Your task to perform on an android device: Add energizer triple a to the cart on newegg Image 0: 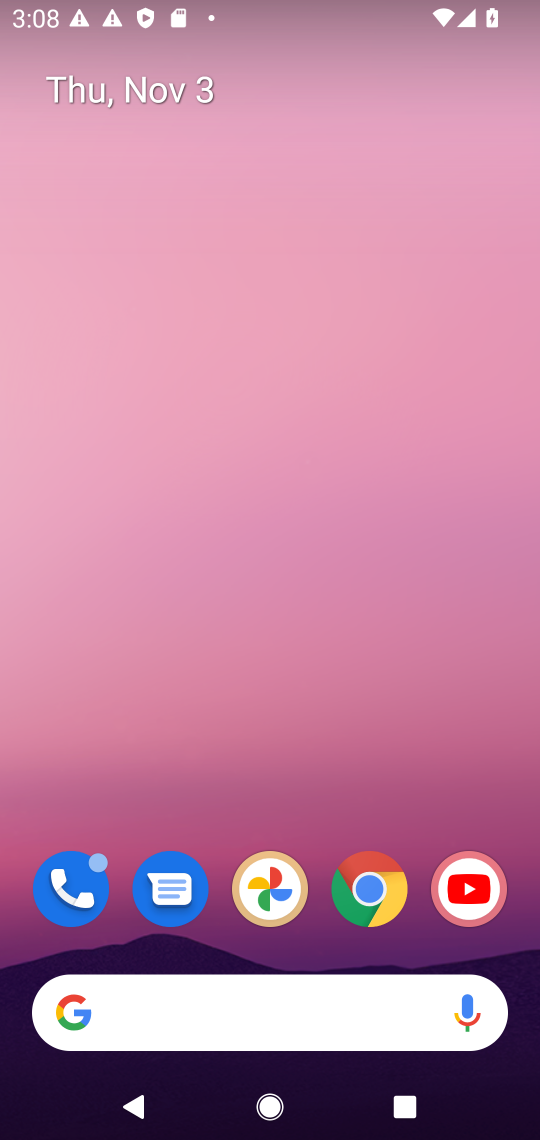
Step 0: click (374, 897)
Your task to perform on an android device: Add energizer triple a to the cart on newegg Image 1: 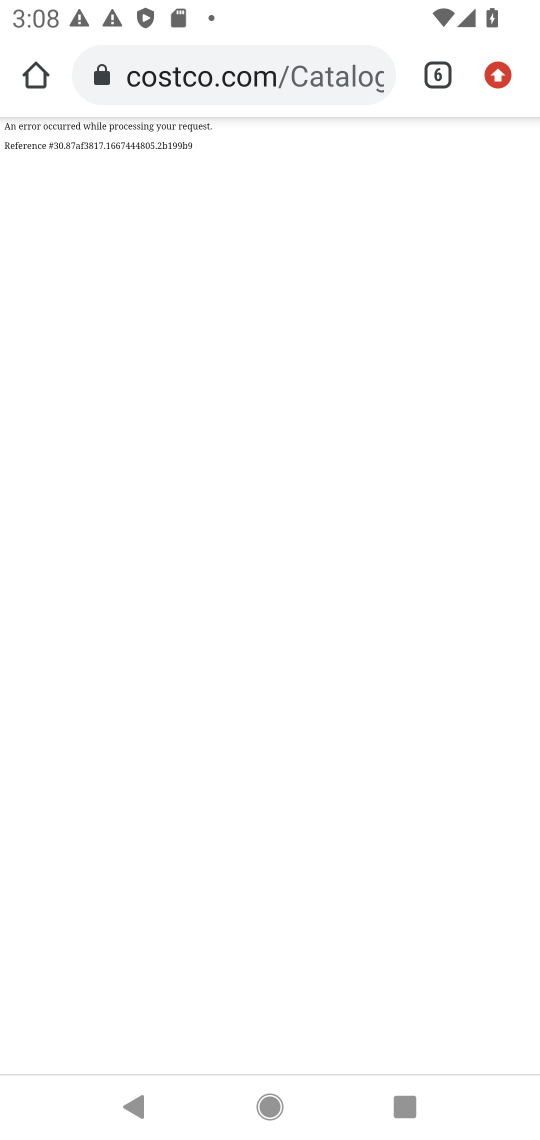
Step 1: click (444, 62)
Your task to perform on an android device: Add energizer triple a to the cart on newegg Image 2: 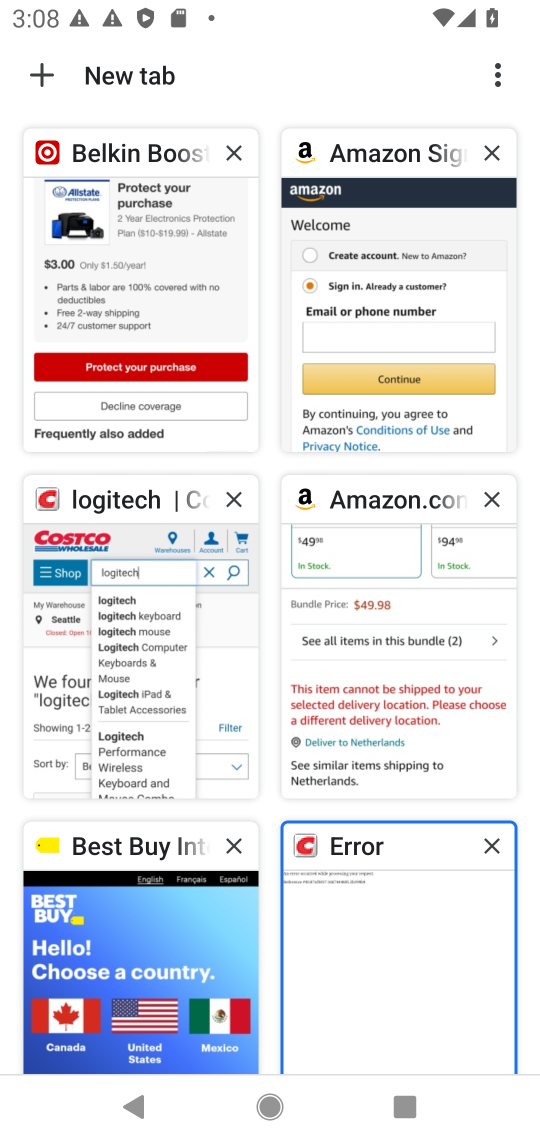
Step 2: click (486, 858)
Your task to perform on an android device: Add energizer triple a to the cart on newegg Image 3: 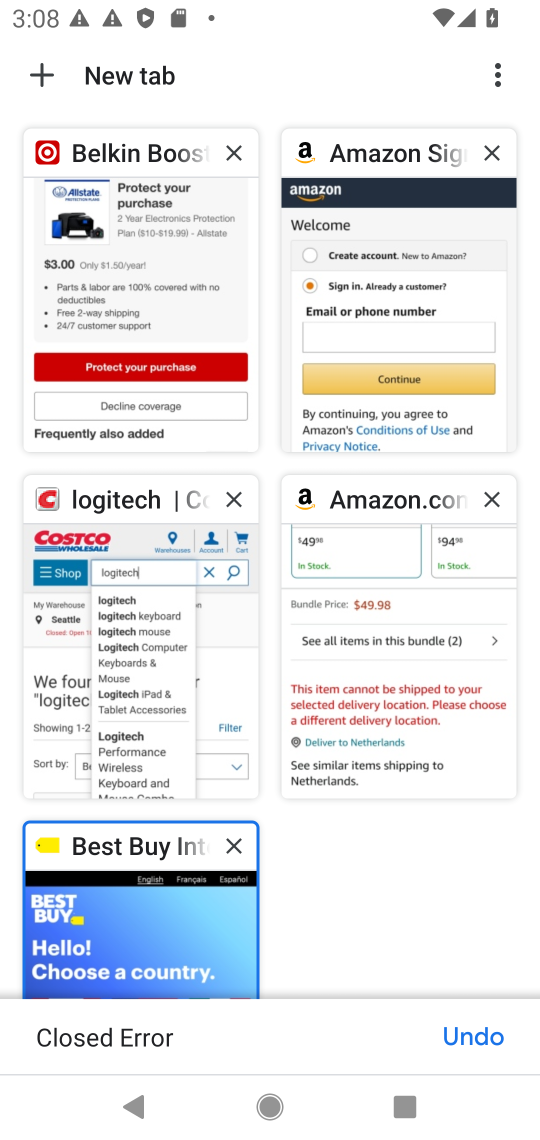
Step 3: click (490, 847)
Your task to perform on an android device: Add energizer triple a to the cart on newegg Image 4: 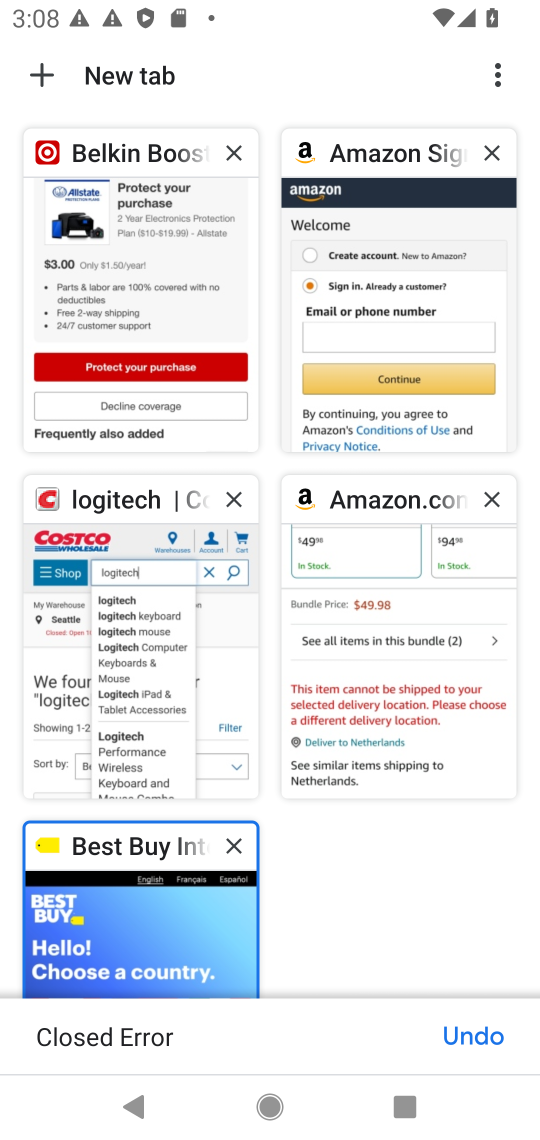
Step 4: click (231, 844)
Your task to perform on an android device: Add energizer triple a to the cart on newegg Image 5: 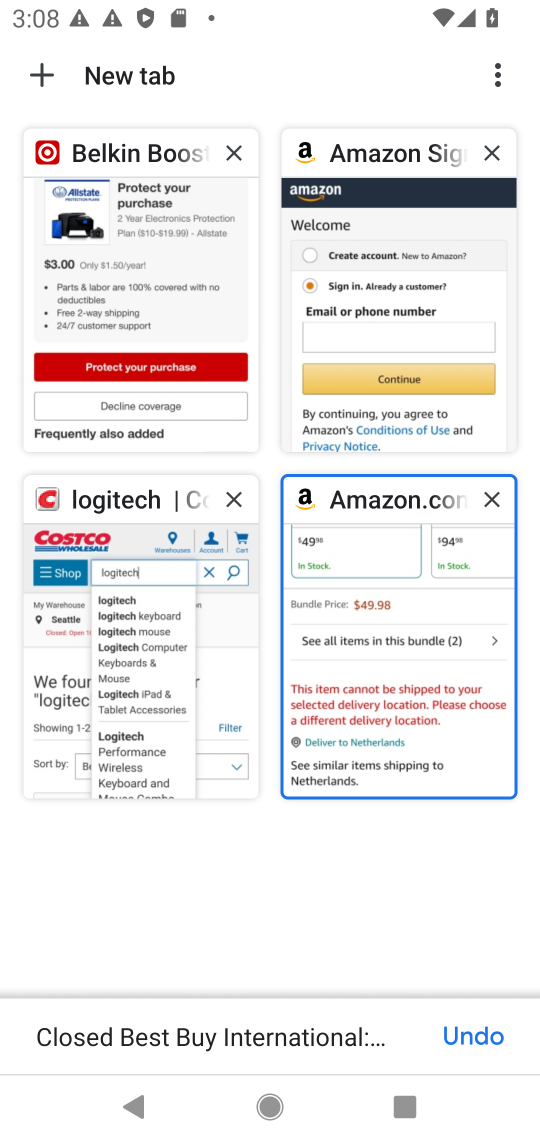
Step 5: click (44, 76)
Your task to perform on an android device: Add energizer triple a to the cart on newegg Image 6: 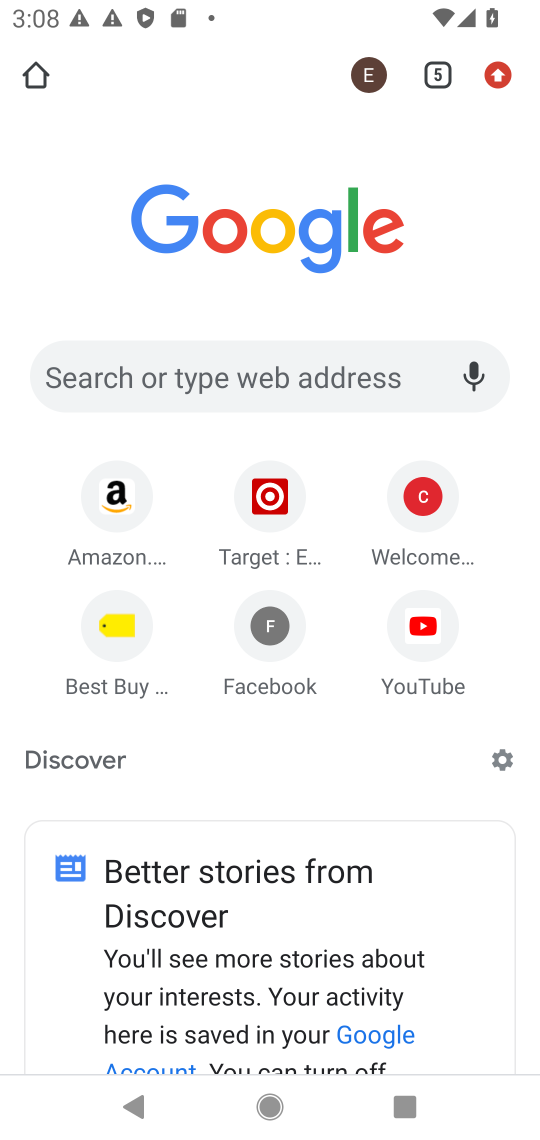
Step 6: click (195, 382)
Your task to perform on an android device: Add energizer triple a to the cart on newegg Image 7: 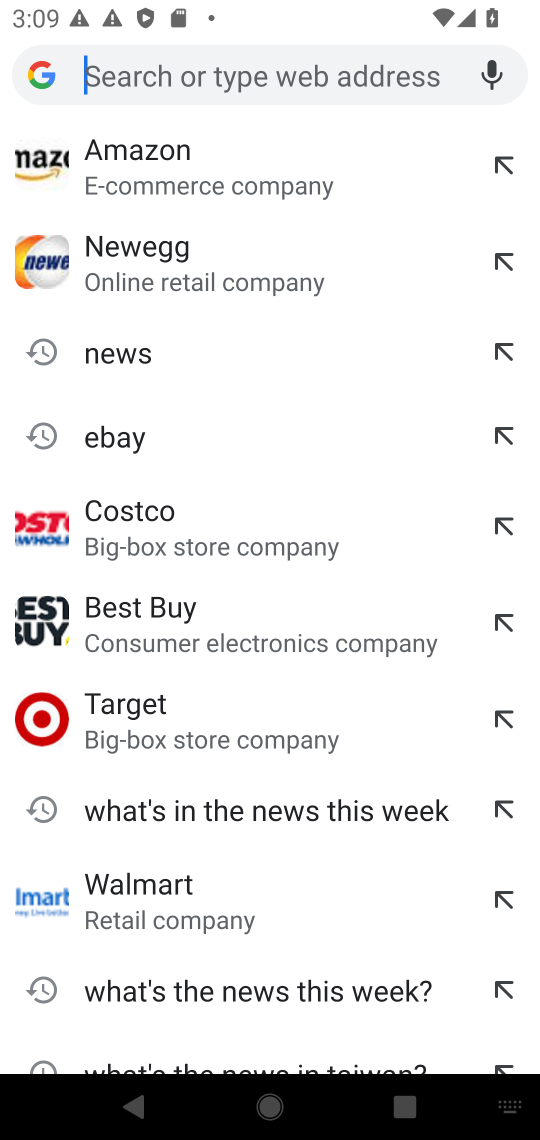
Step 7: type "newegg"
Your task to perform on an android device: Add energizer triple a to the cart on newegg Image 8: 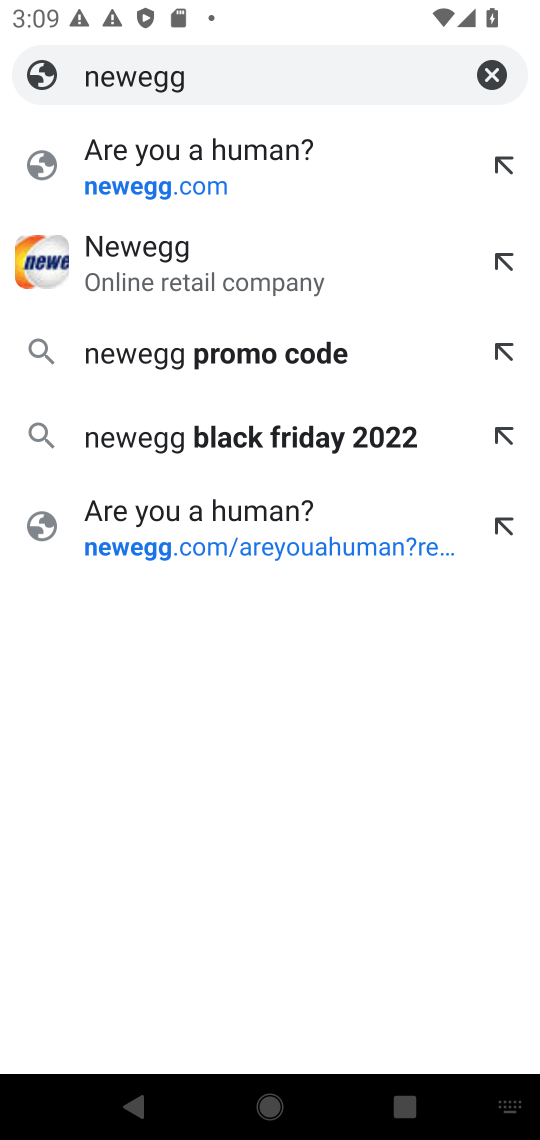
Step 8: click (230, 256)
Your task to perform on an android device: Add energizer triple a to the cart on newegg Image 9: 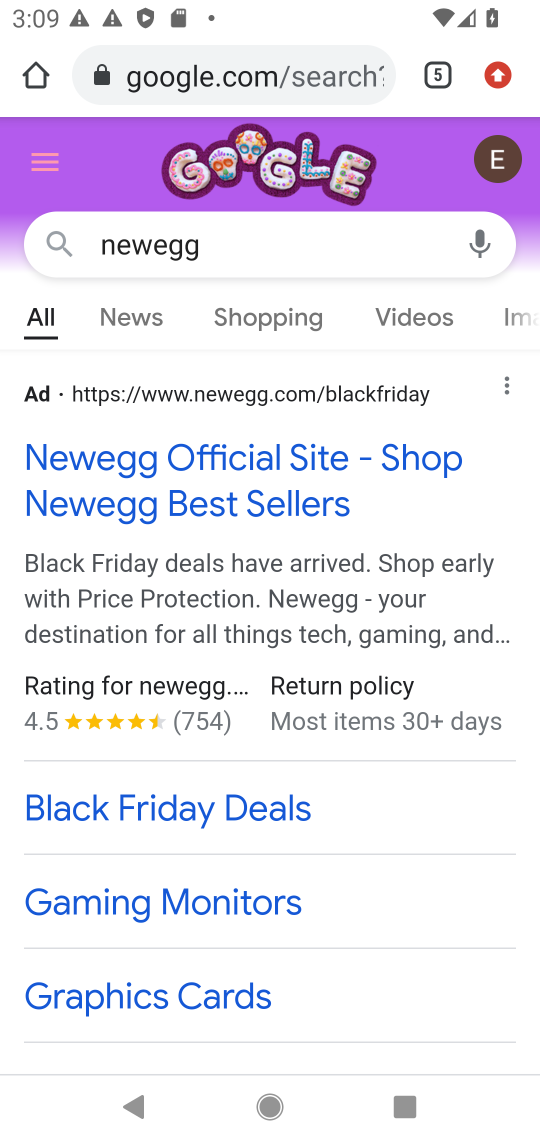
Step 9: drag from (284, 959) to (336, 323)
Your task to perform on an android device: Add energizer triple a to the cart on newegg Image 10: 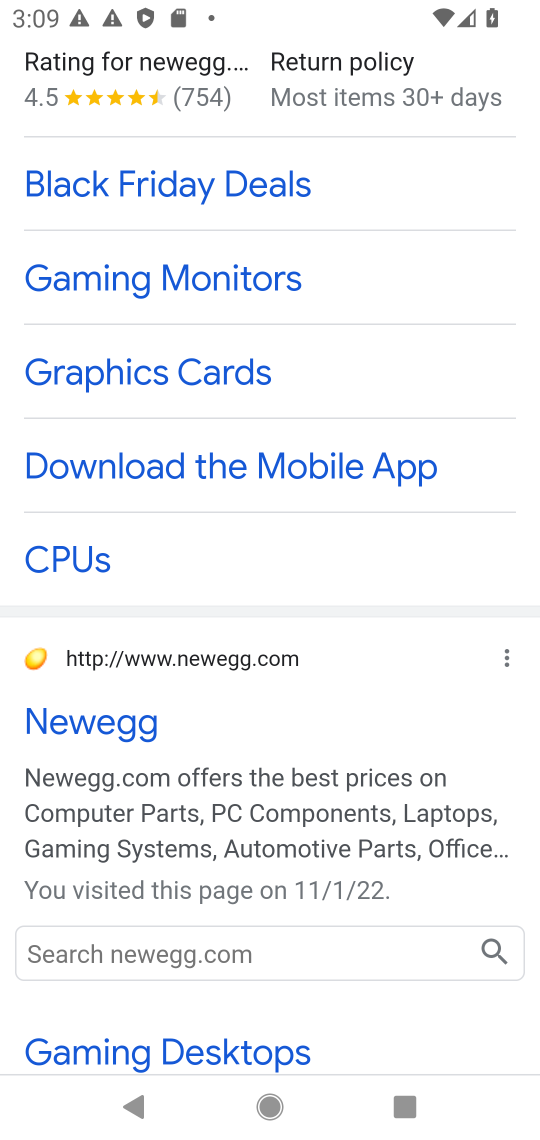
Step 10: click (100, 724)
Your task to perform on an android device: Add energizer triple a to the cart on newegg Image 11: 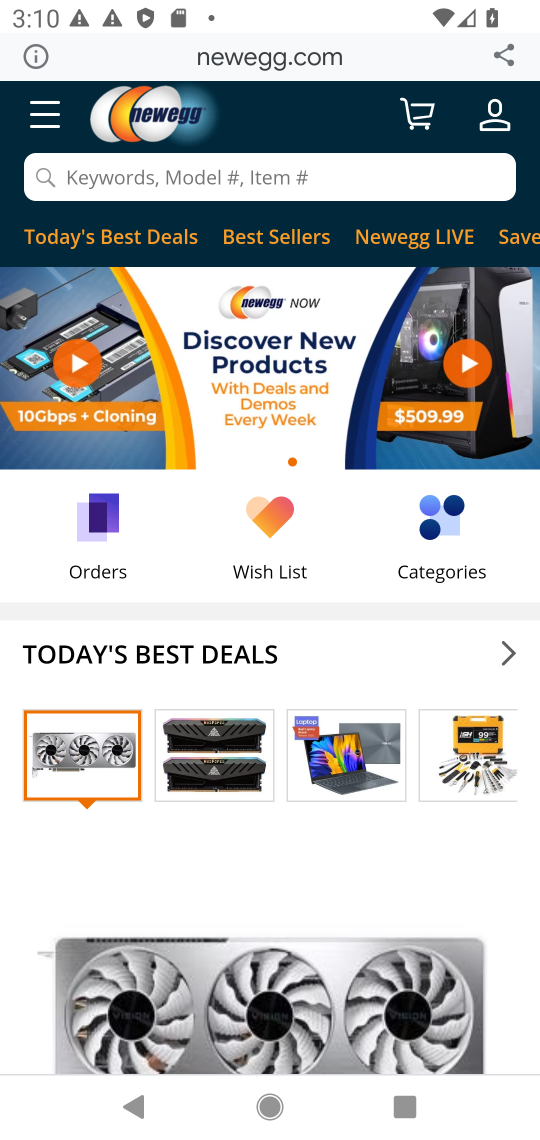
Step 11: drag from (191, 969) to (284, 402)
Your task to perform on an android device: Add energizer triple a to the cart on newegg Image 12: 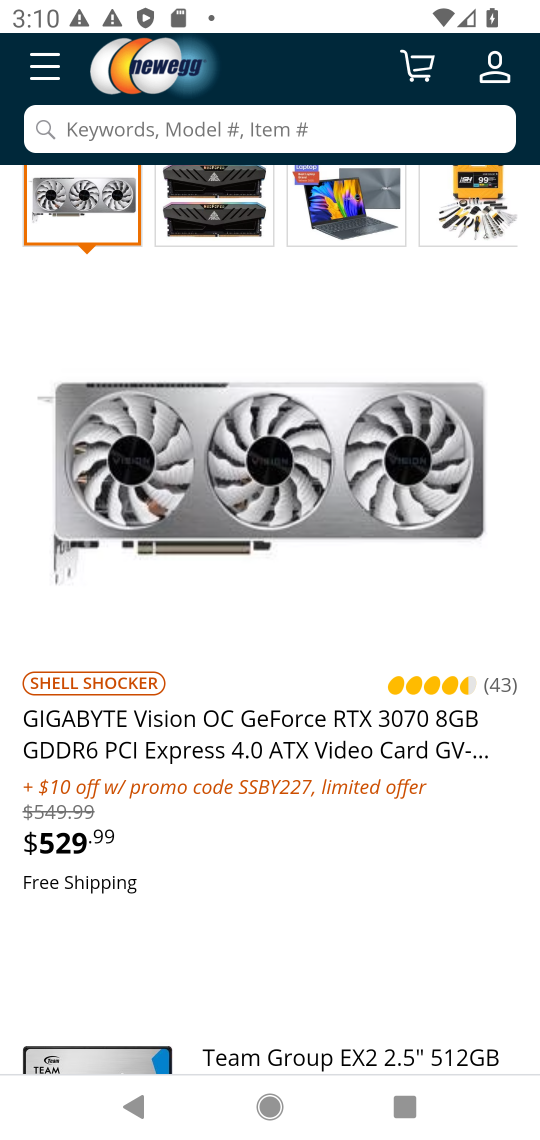
Step 12: drag from (336, 359) to (393, 1110)
Your task to perform on an android device: Add energizer triple a to the cart on newegg Image 13: 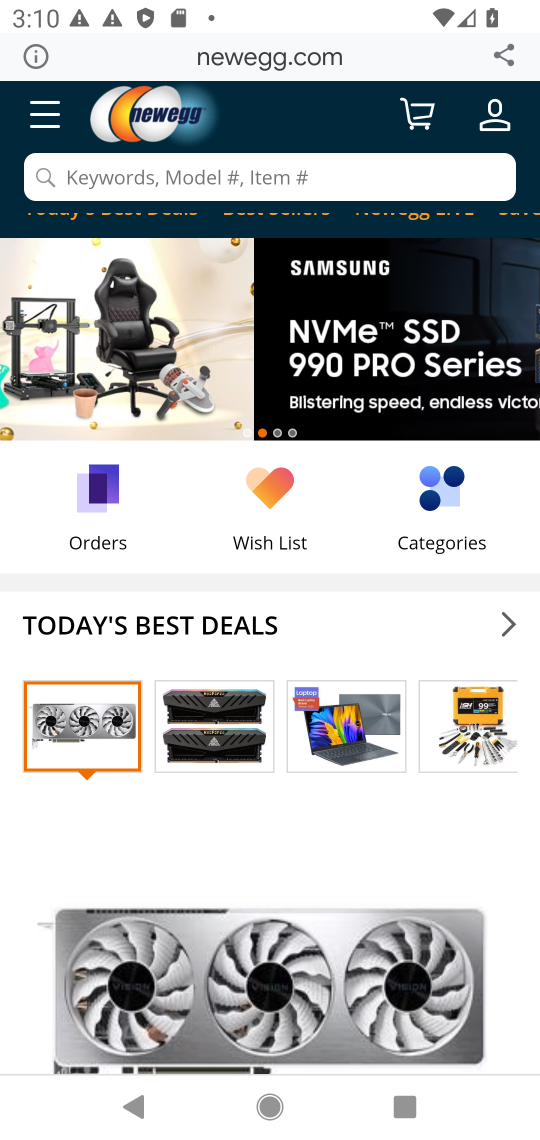
Step 13: click (169, 184)
Your task to perform on an android device: Add energizer triple a to the cart on newegg Image 14: 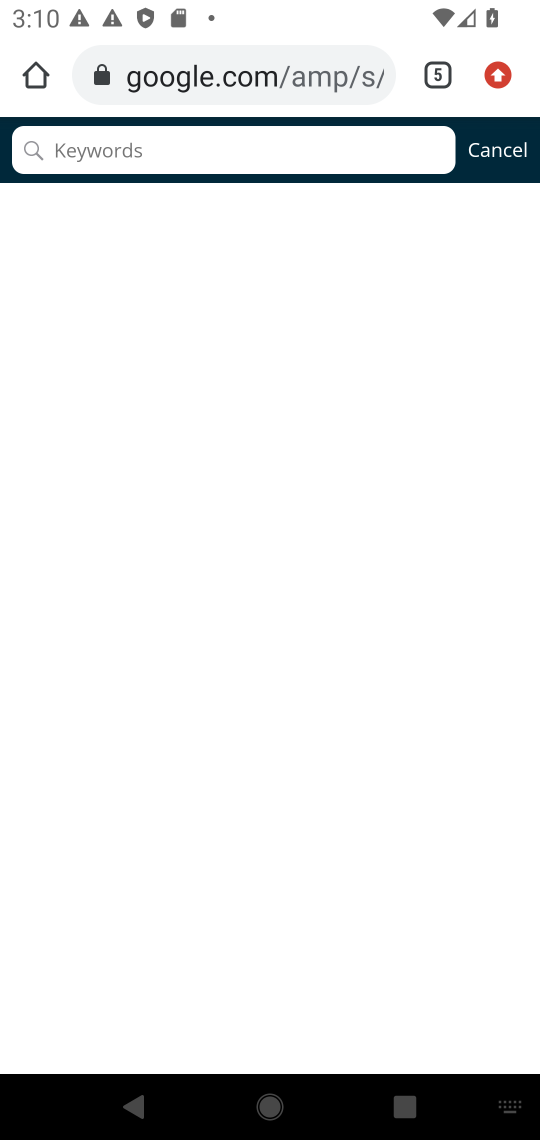
Step 14: click (110, 141)
Your task to perform on an android device: Add energizer triple a to the cart on newegg Image 15: 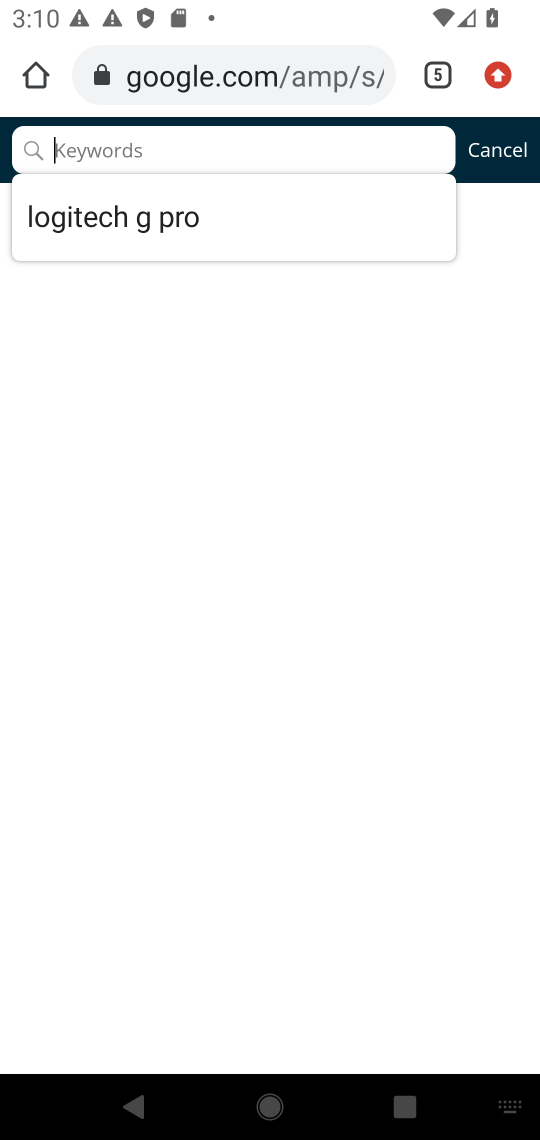
Step 15: type " energizer triple"
Your task to perform on an android device: Add energizer triple a to the cart on newegg Image 16: 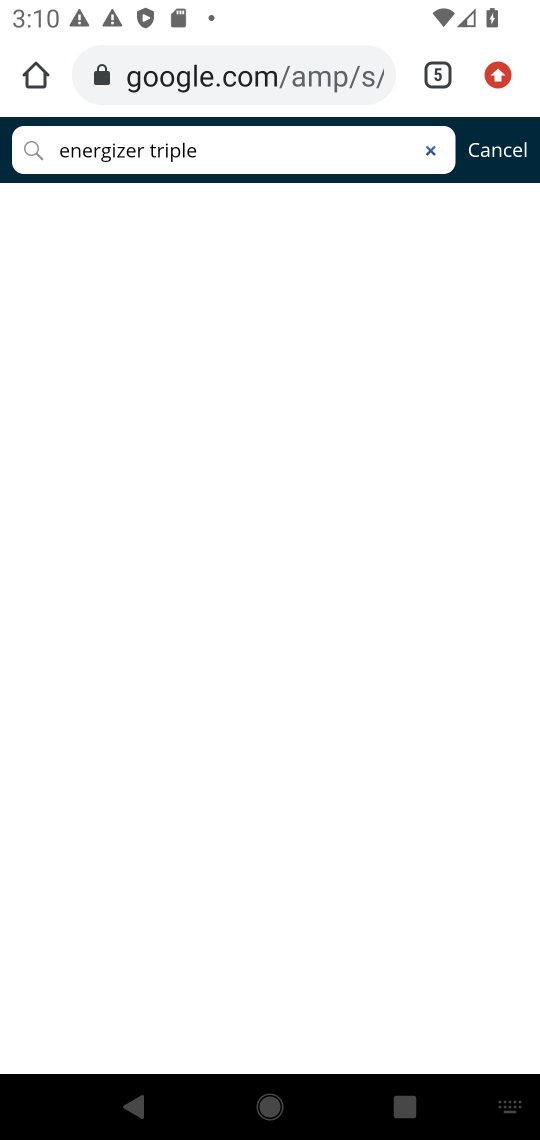
Step 16: click (271, 139)
Your task to perform on an android device: Add energizer triple a to the cart on newegg Image 17: 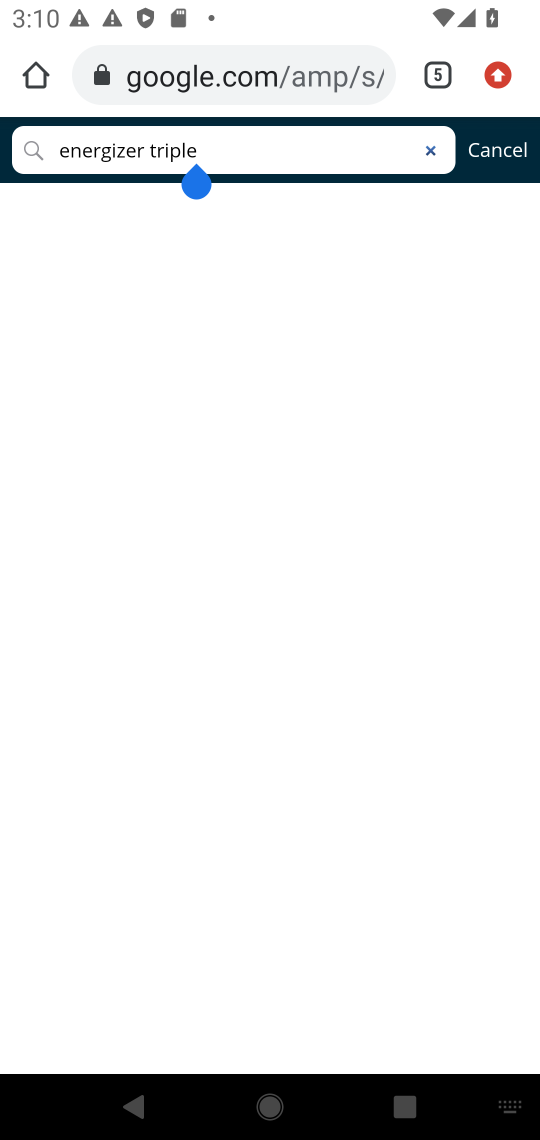
Step 17: task complete